Your task to perform on an android device: snooze an email in the gmail app Image 0: 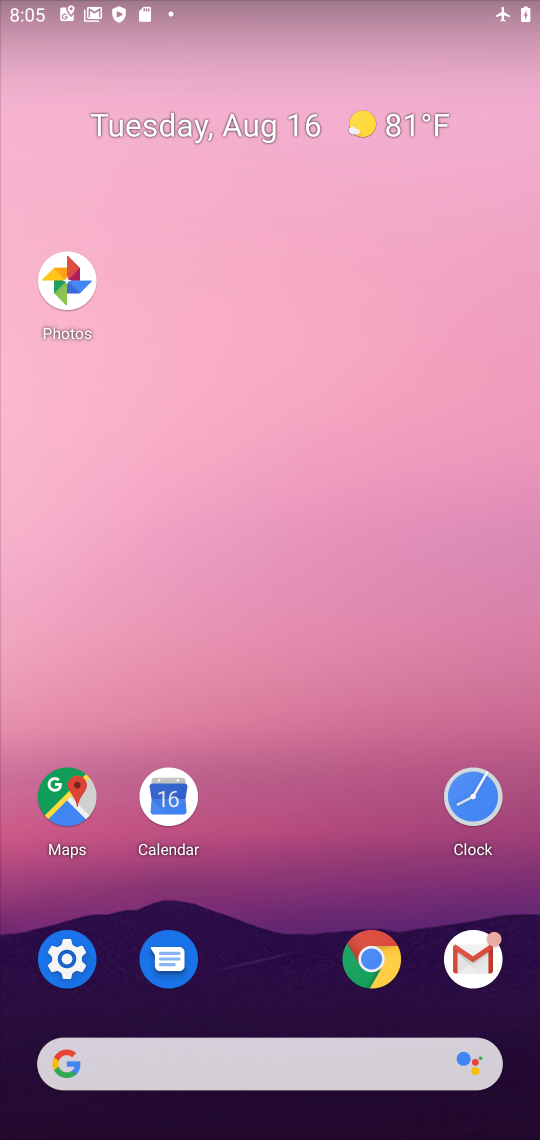
Step 0: click (478, 961)
Your task to perform on an android device: snooze an email in the gmail app Image 1: 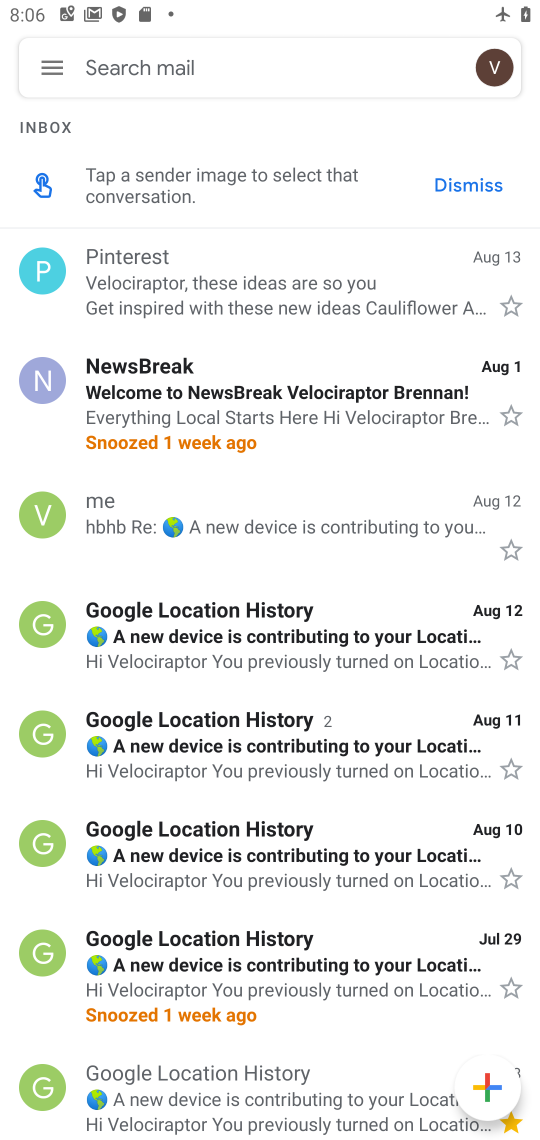
Step 1: click (53, 59)
Your task to perform on an android device: snooze an email in the gmail app Image 2: 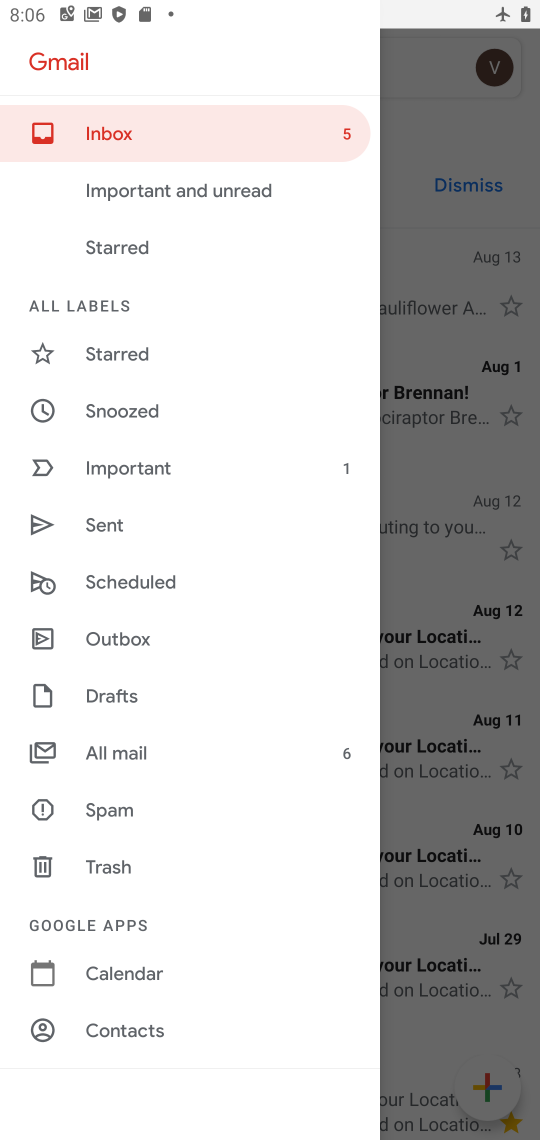
Step 2: click (433, 271)
Your task to perform on an android device: snooze an email in the gmail app Image 3: 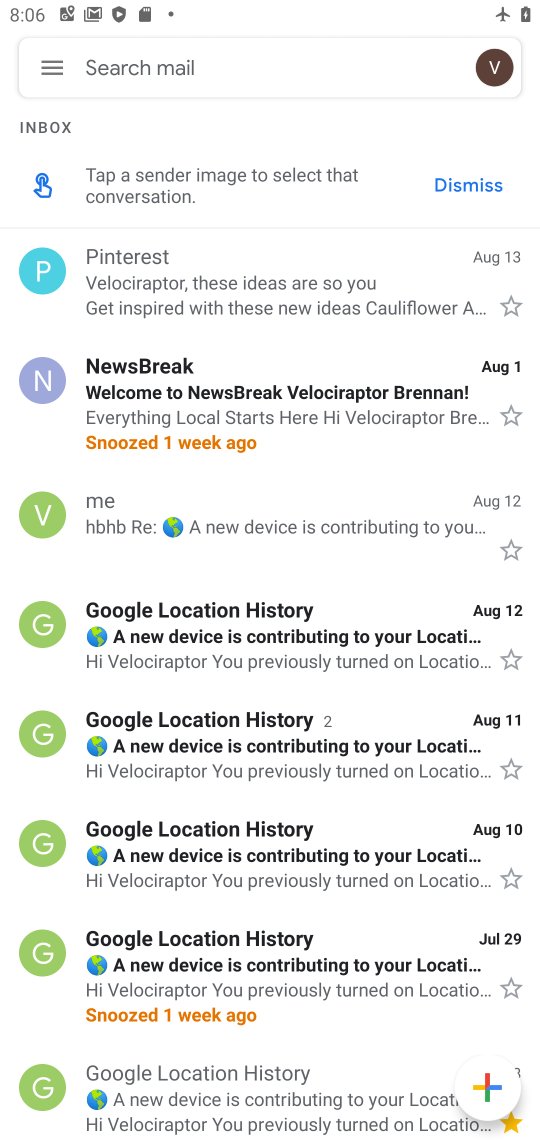
Step 3: click (263, 286)
Your task to perform on an android device: snooze an email in the gmail app Image 4: 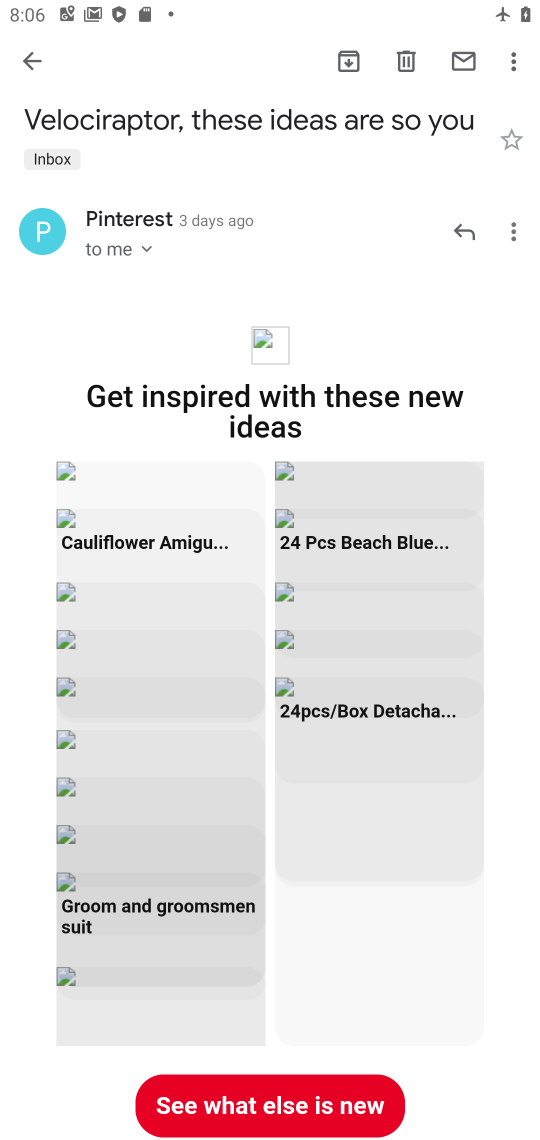
Step 4: click (519, 59)
Your task to perform on an android device: snooze an email in the gmail app Image 5: 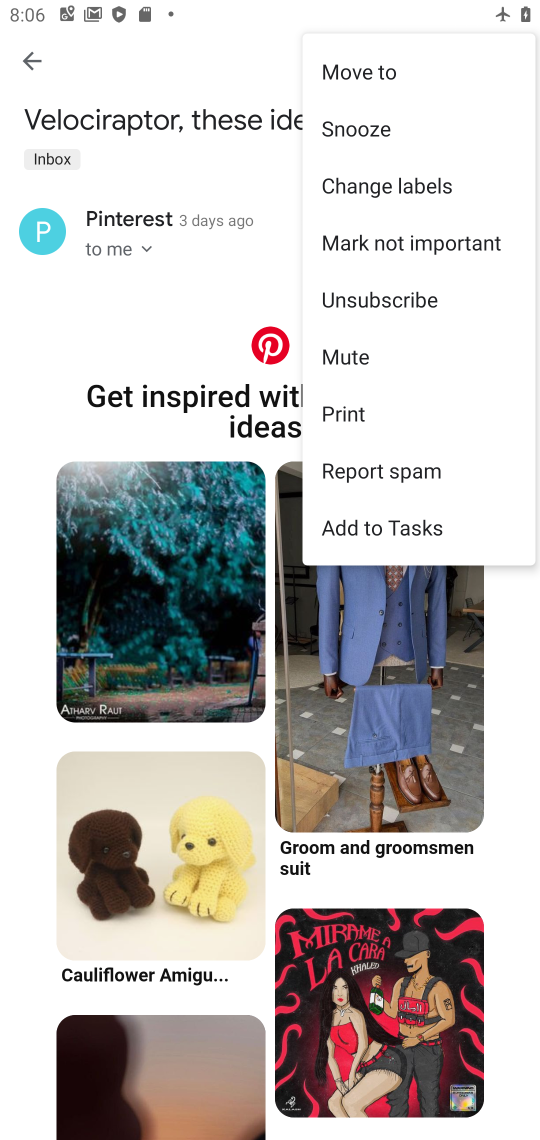
Step 5: click (362, 128)
Your task to perform on an android device: snooze an email in the gmail app Image 6: 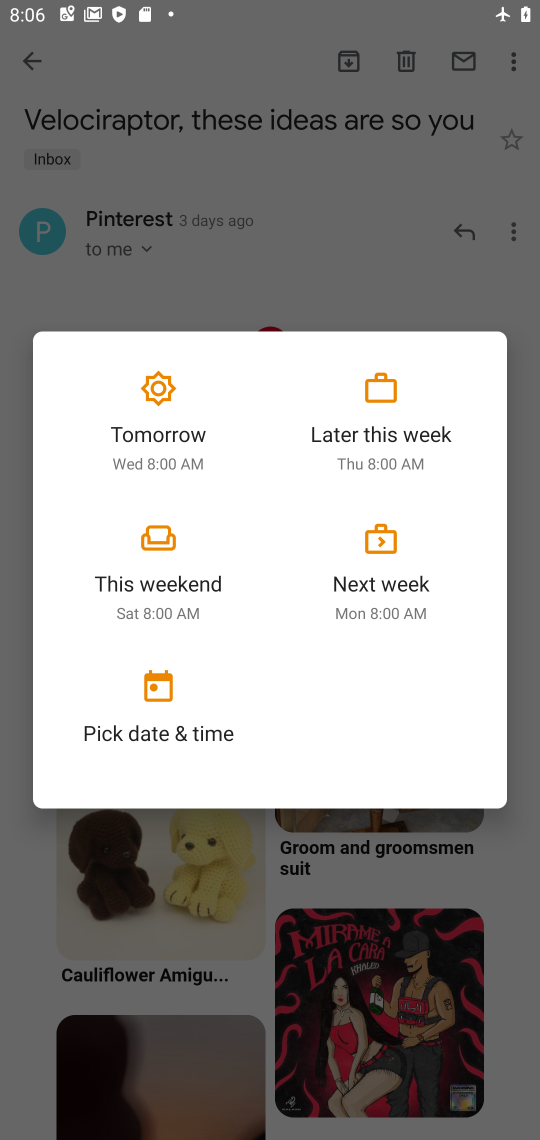
Step 6: click (163, 395)
Your task to perform on an android device: snooze an email in the gmail app Image 7: 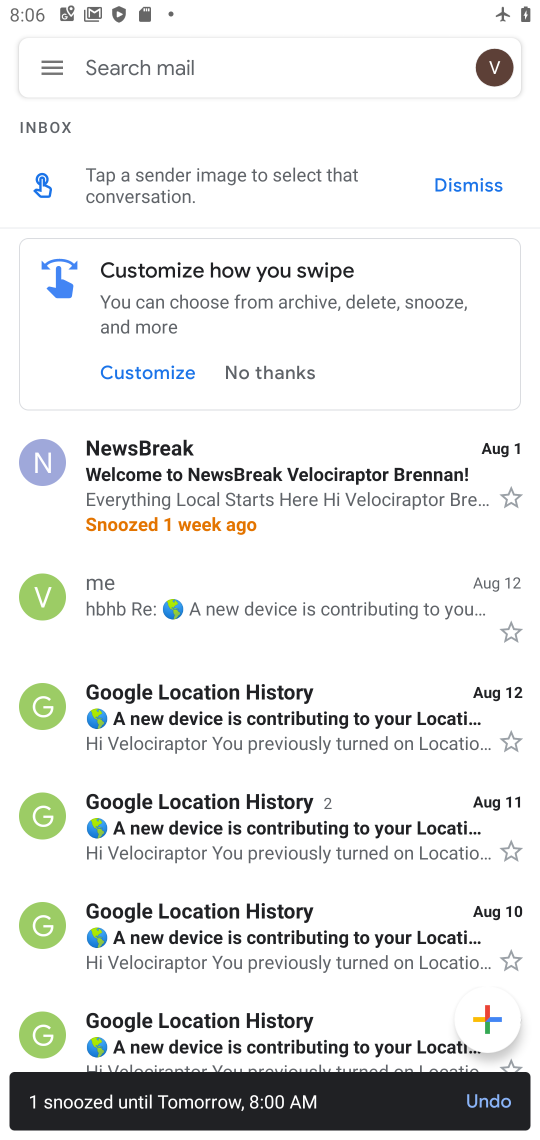
Step 7: task complete